Your task to perform on an android device: turn on data saver in the chrome app Image 0: 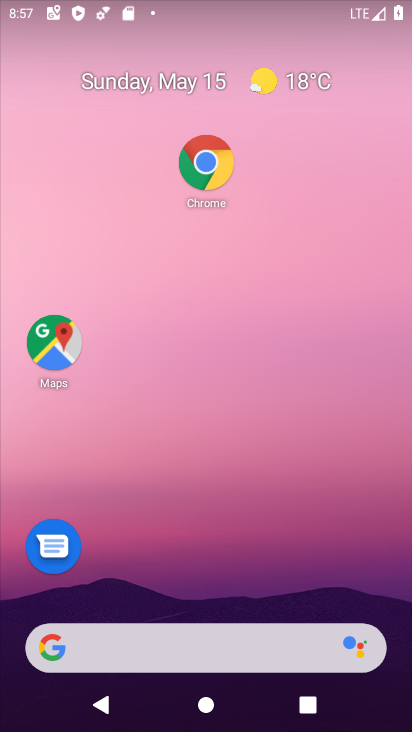
Step 0: drag from (284, 520) to (298, 238)
Your task to perform on an android device: turn on data saver in the chrome app Image 1: 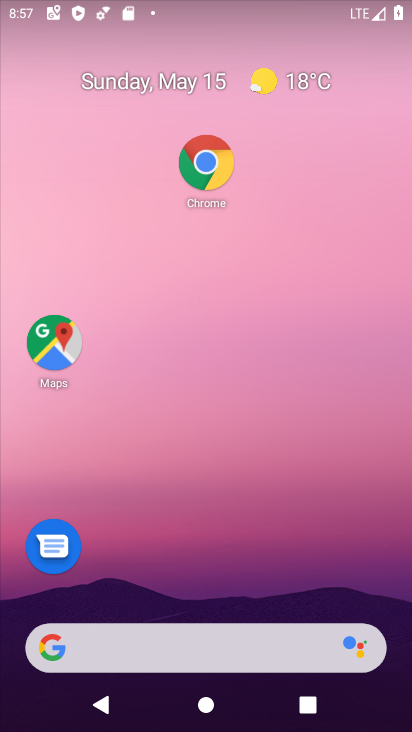
Step 1: click (219, 153)
Your task to perform on an android device: turn on data saver in the chrome app Image 2: 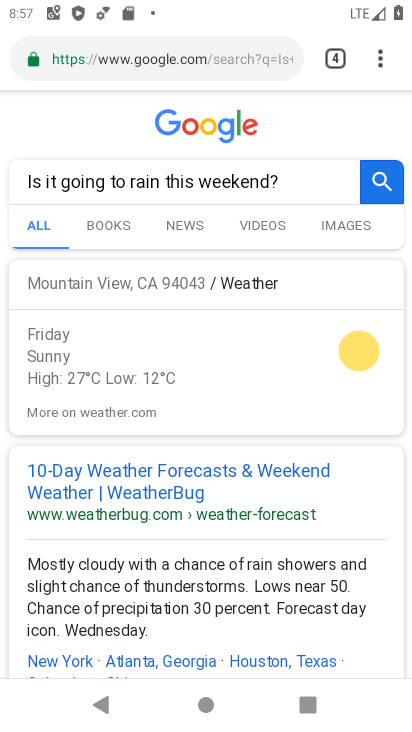
Step 2: click (391, 52)
Your task to perform on an android device: turn on data saver in the chrome app Image 3: 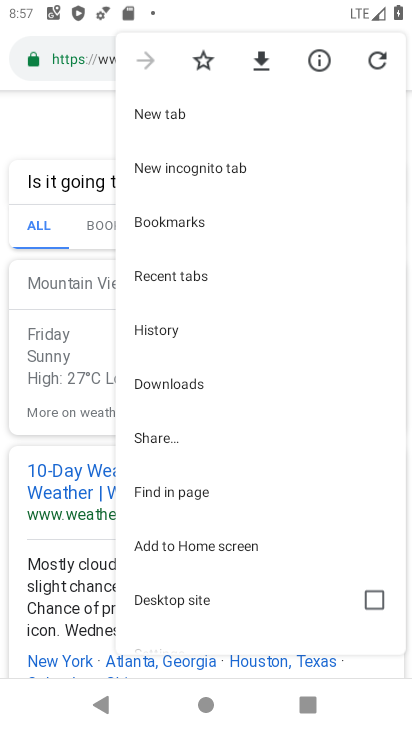
Step 3: drag from (206, 531) to (227, 239)
Your task to perform on an android device: turn on data saver in the chrome app Image 4: 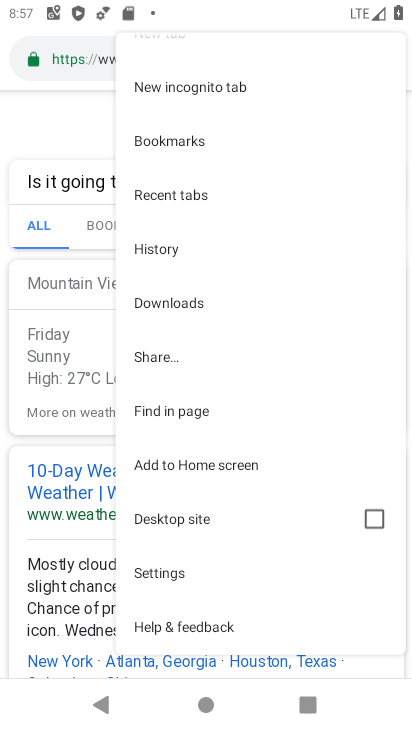
Step 4: click (156, 583)
Your task to perform on an android device: turn on data saver in the chrome app Image 5: 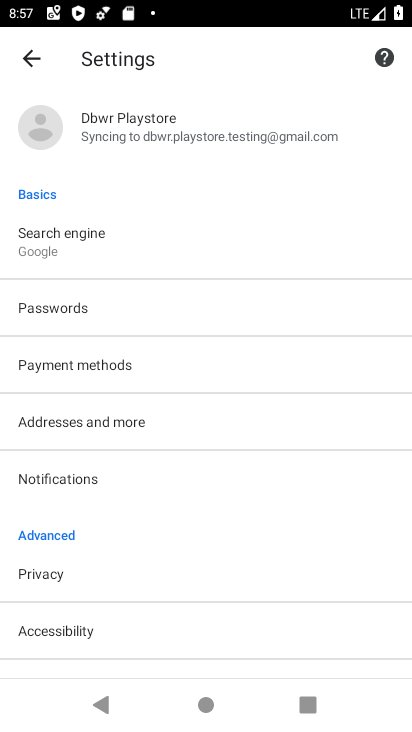
Step 5: drag from (151, 566) to (196, 324)
Your task to perform on an android device: turn on data saver in the chrome app Image 6: 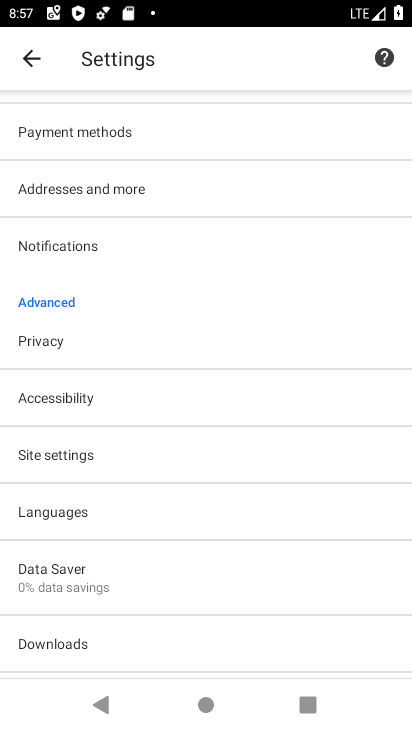
Step 6: click (168, 572)
Your task to perform on an android device: turn on data saver in the chrome app Image 7: 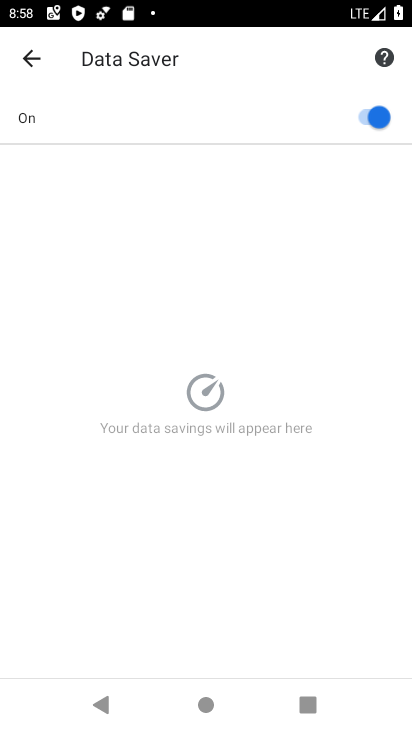
Step 7: task complete